Your task to perform on an android device: Open Chrome and go to the settings page Image 0: 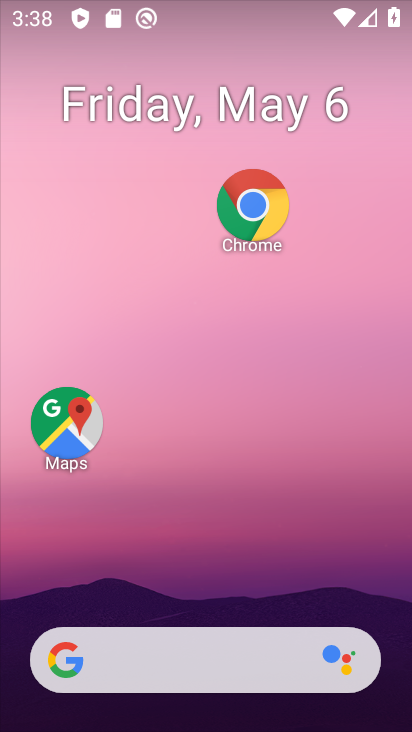
Step 0: click (265, 204)
Your task to perform on an android device: Open Chrome and go to the settings page Image 1: 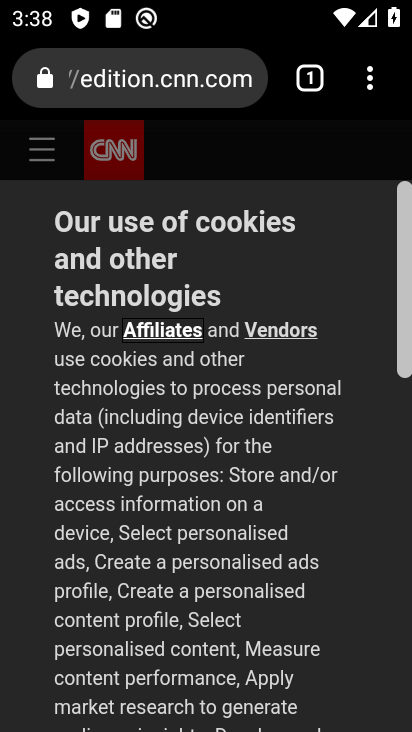
Step 1: task complete